Your task to perform on an android device: change the upload size in google photos Image 0: 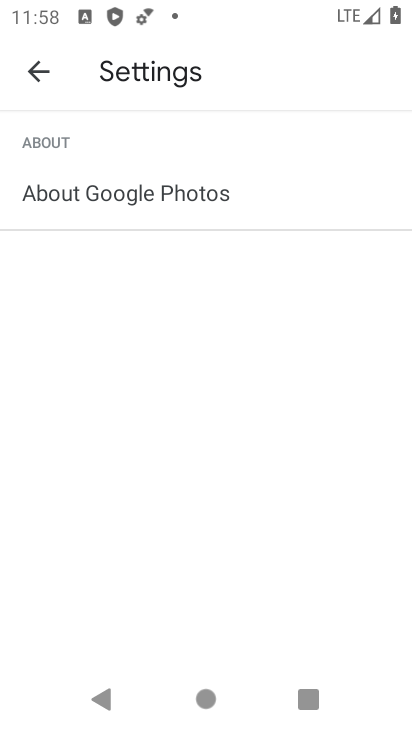
Step 0: press home button
Your task to perform on an android device: change the upload size in google photos Image 1: 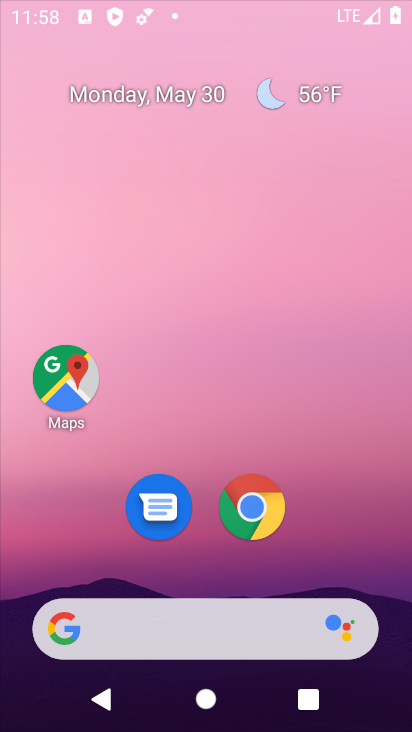
Step 1: drag from (401, 676) to (334, 105)
Your task to perform on an android device: change the upload size in google photos Image 2: 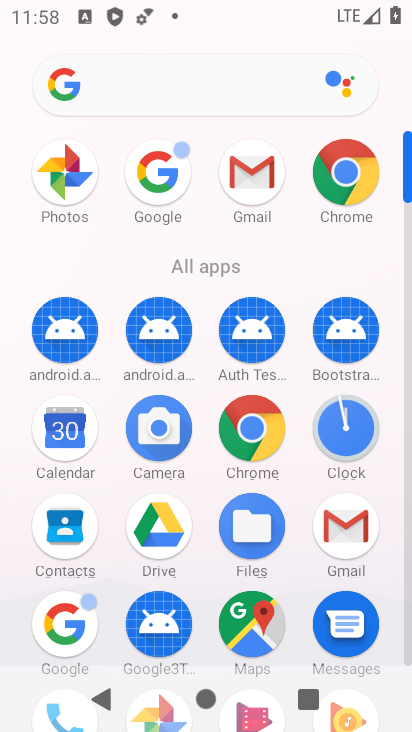
Step 2: click (82, 180)
Your task to perform on an android device: change the upload size in google photos Image 3: 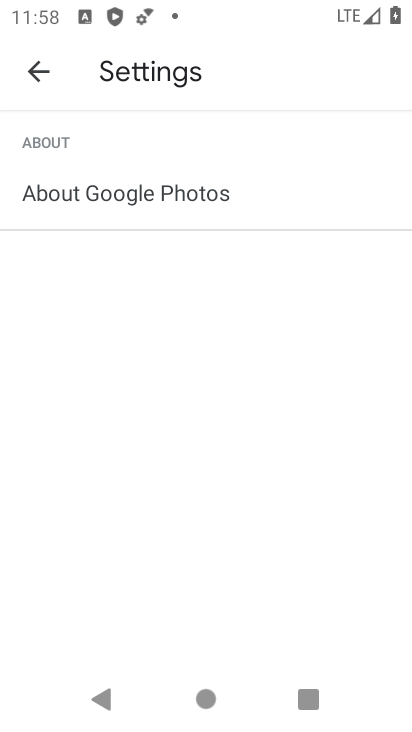
Step 3: press back button
Your task to perform on an android device: change the upload size in google photos Image 4: 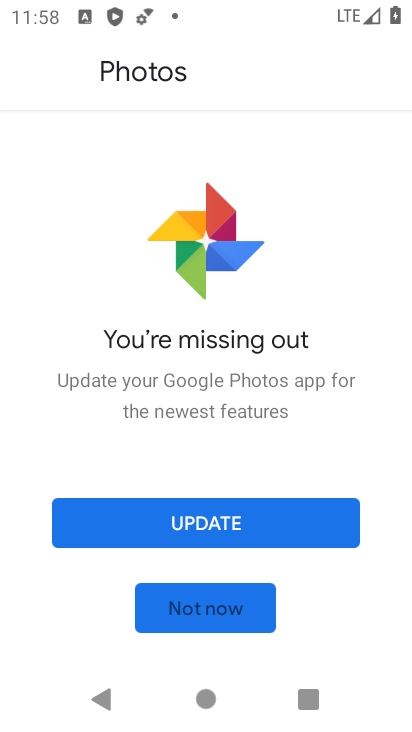
Step 4: click (245, 527)
Your task to perform on an android device: change the upload size in google photos Image 5: 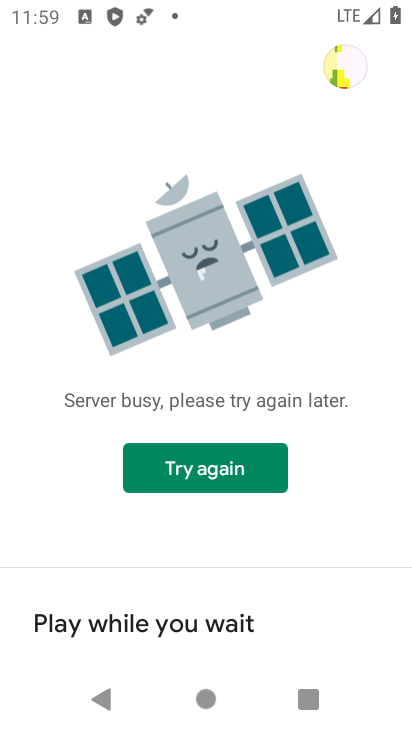
Step 5: click (198, 464)
Your task to perform on an android device: change the upload size in google photos Image 6: 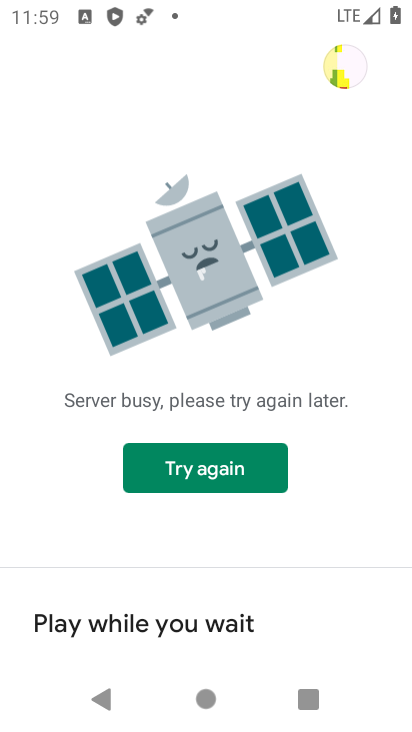
Step 6: task complete